Your task to perform on an android device: Search for sushi restaurants on Maps Image 0: 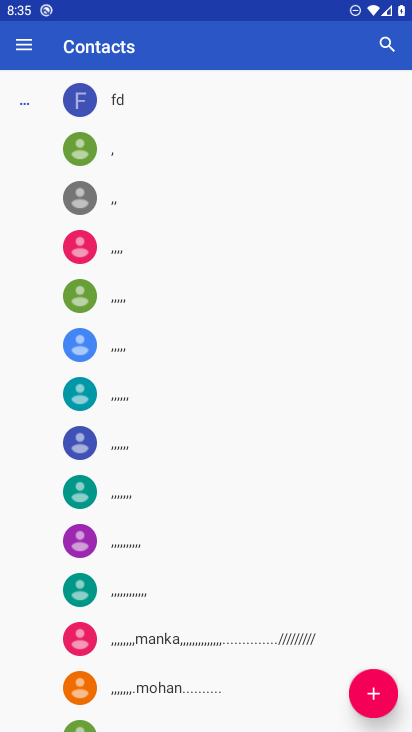
Step 0: press home button
Your task to perform on an android device: Search for sushi restaurants on Maps Image 1: 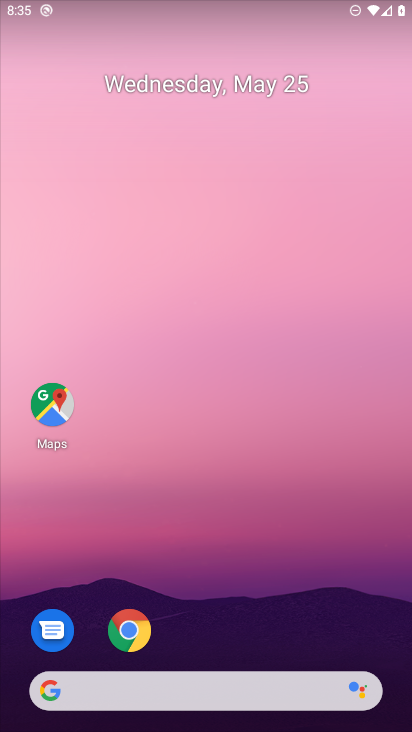
Step 1: click (55, 405)
Your task to perform on an android device: Search for sushi restaurants on Maps Image 2: 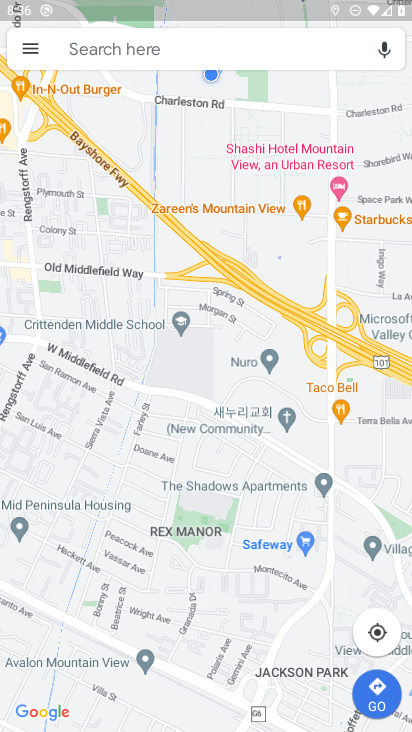
Step 2: click (138, 47)
Your task to perform on an android device: Search for sushi restaurants on Maps Image 3: 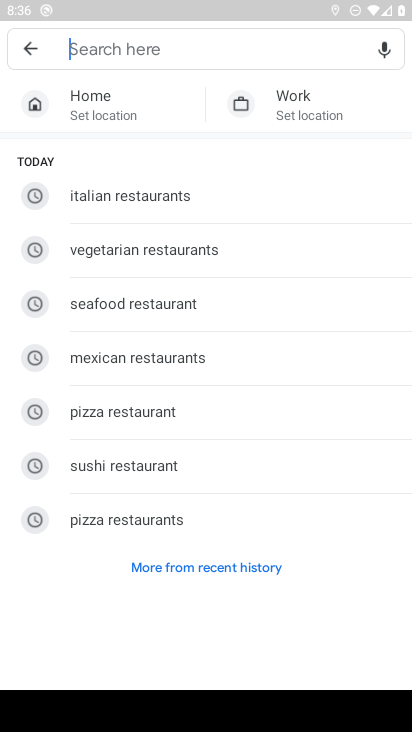
Step 3: click (93, 458)
Your task to perform on an android device: Search for sushi restaurants on Maps Image 4: 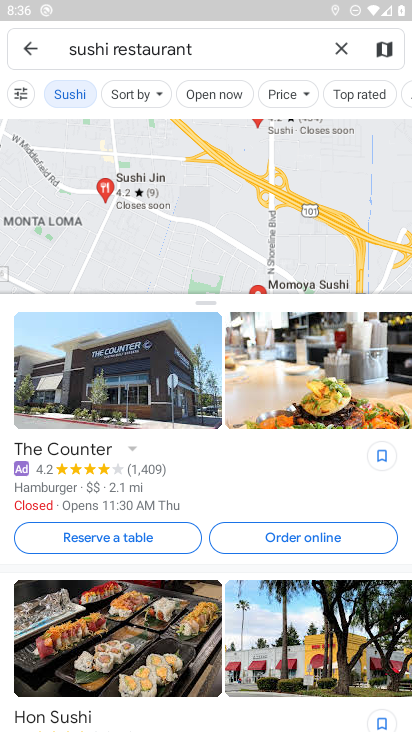
Step 4: task complete